Your task to perform on an android device: empty trash in the gmail app Image 0: 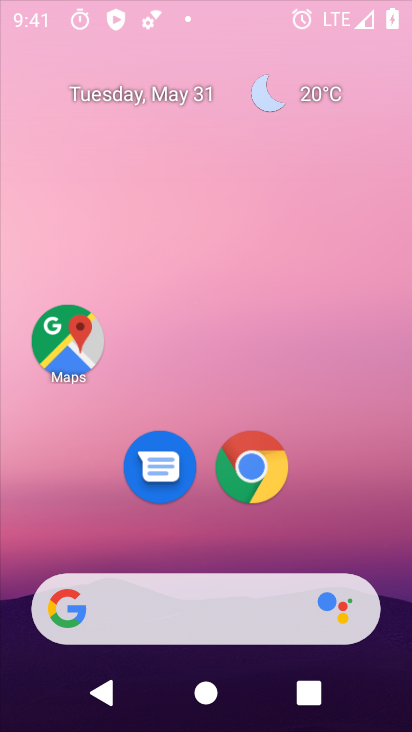
Step 0: click (257, 76)
Your task to perform on an android device: empty trash in the gmail app Image 1: 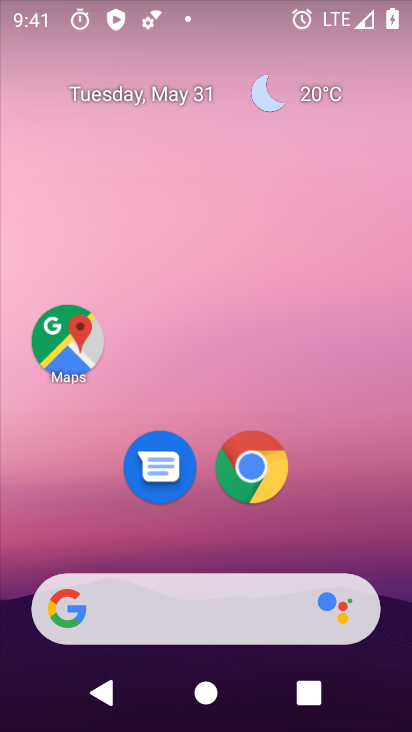
Step 1: click (73, 340)
Your task to perform on an android device: empty trash in the gmail app Image 2: 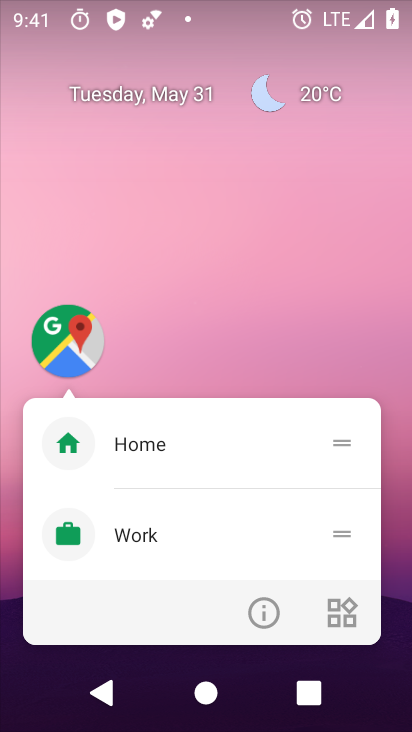
Step 2: click (271, 607)
Your task to perform on an android device: empty trash in the gmail app Image 3: 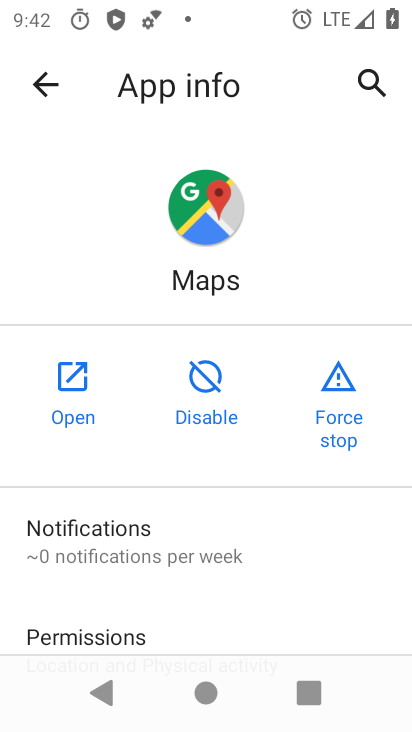
Step 3: click (59, 386)
Your task to perform on an android device: empty trash in the gmail app Image 4: 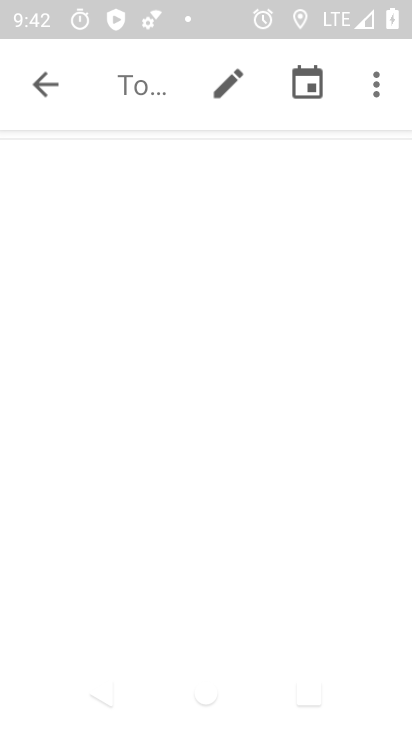
Step 4: drag from (178, 506) to (216, 205)
Your task to perform on an android device: empty trash in the gmail app Image 5: 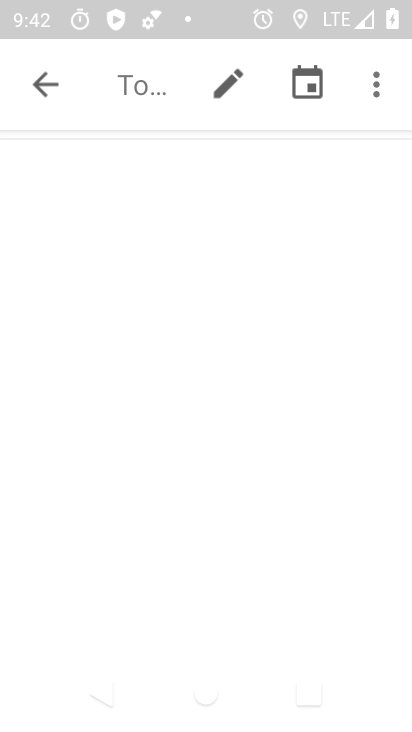
Step 5: click (207, 504)
Your task to perform on an android device: empty trash in the gmail app Image 6: 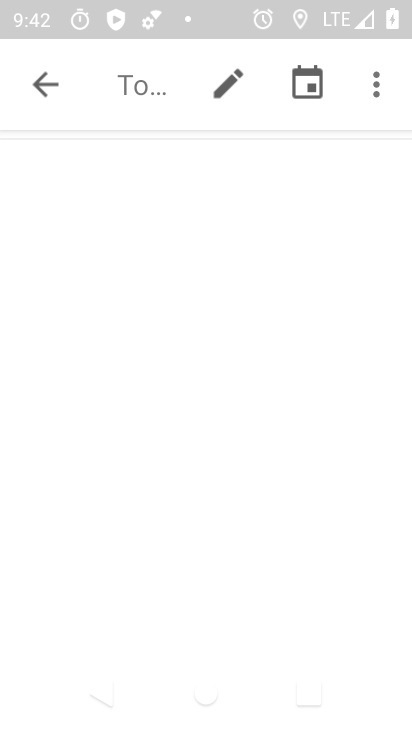
Step 6: drag from (216, 633) to (242, 250)
Your task to perform on an android device: empty trash in the gmail app Image 7: 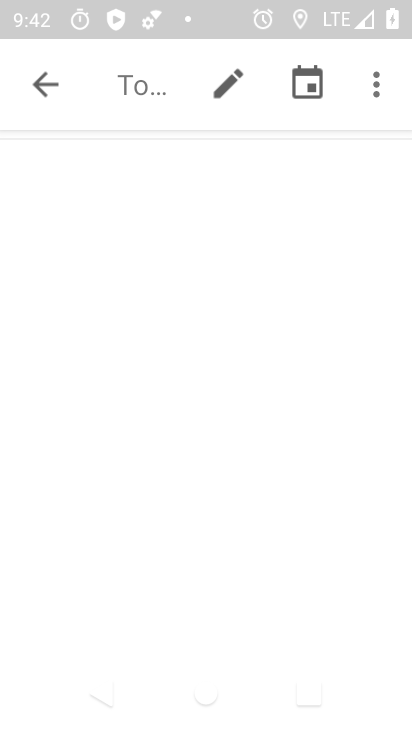
Step 7: click (23, 89)
Your task to perform on an android device: empty trash in the gmail app Image 8: 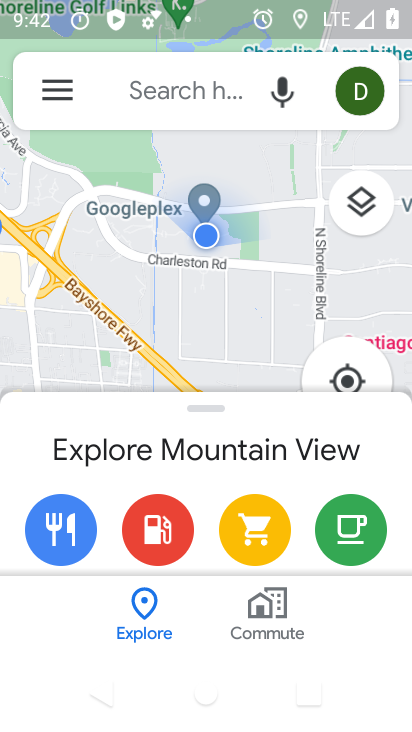
Step 8: click (67, 95)
Your task to perform on an android device: empty trash in the gmail app Image 9: 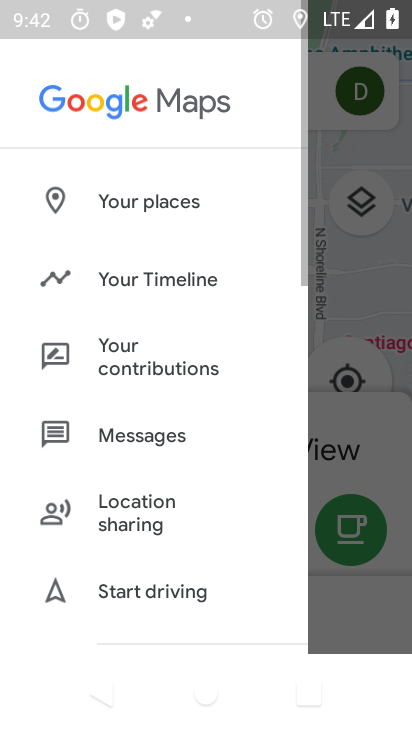
Step 9: drag from (179, 474) to (235, 16)
Your task to perform on an android device: empty trash in the gmail app Image 10: 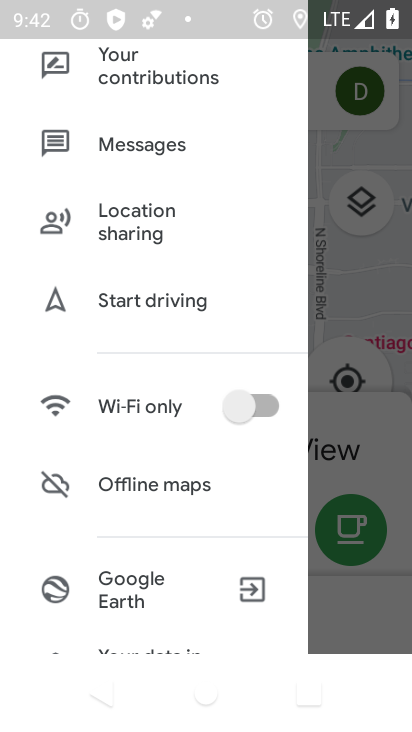
Step 10: drag from (164, 509) to (216, 56)
Your task to perform on an android device: empty trash in the gmail app Image 11: 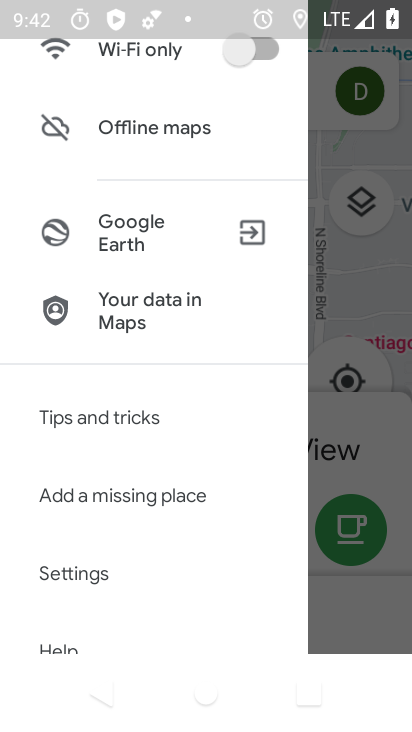
Step 11: press home button
Your task to perform on an android device: empty trash in the gmail app Image 12: 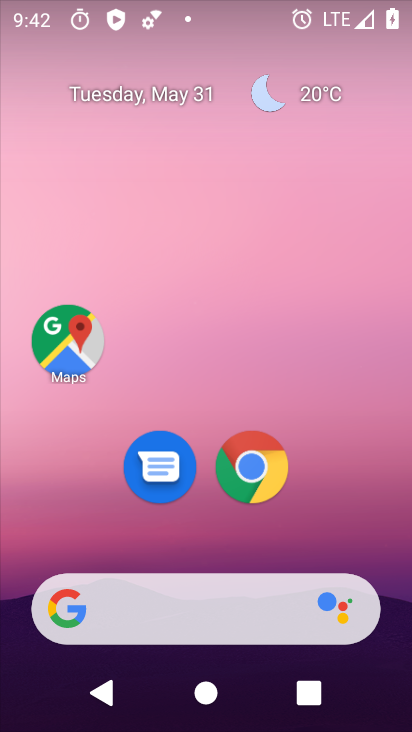
Step 12: drag from (233, 549) to (359, 8)
Your task to perform on an android device: empty trash in the gmail app Image 13: 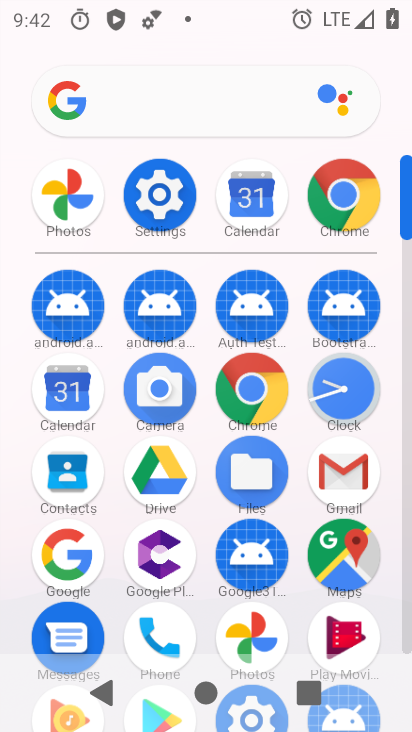
Step 13: click (355, 446)
Your task to perform on an android device: empty trash in the gmail app Image 14: 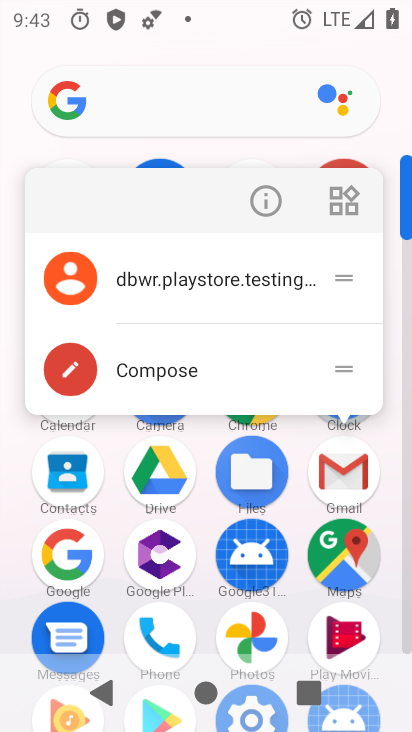
Step 14: click (266, 206)
Your task to perform on an android device: empty trash in the gmail app Image 15: 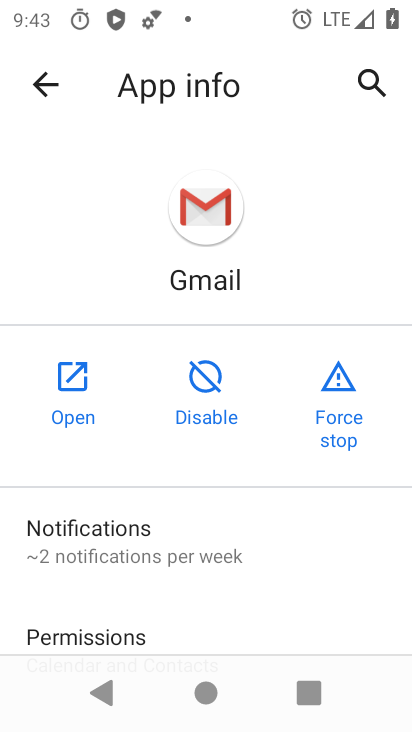
Step 15: click (90, 388)
Your task to perform on an android device: empty trash in the gmail app Image 16: 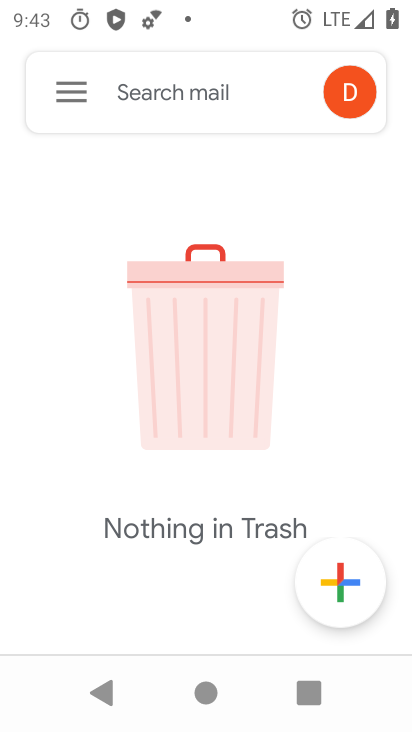
Step 16: click (55, 103)
Your task to perform on an android device: empty trash in the gmail app Image 17: 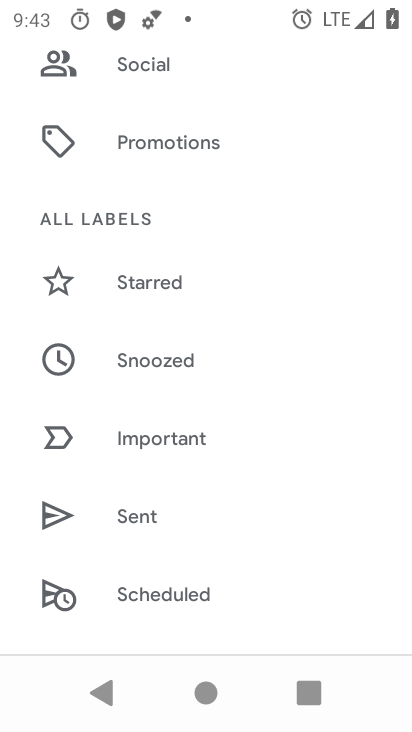
Step 17: drag from (164, 496) to (270, 0)
Your task to perform on an android device: empty trash in the gmail app Image 18: 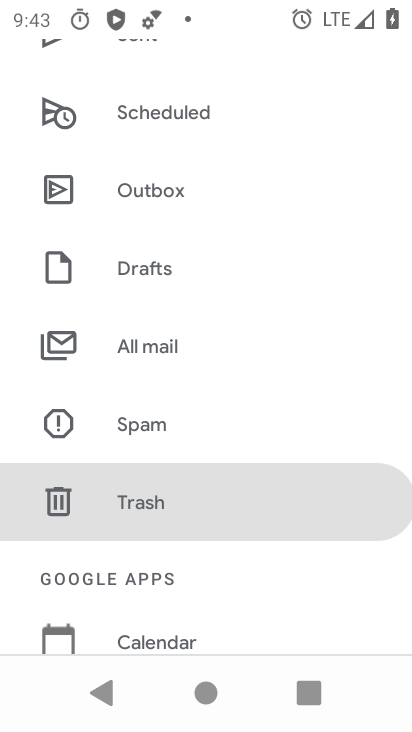
Step 18: click (151, 503)
Your task to perform on an android device: empty trash in the gmail app Image 19: 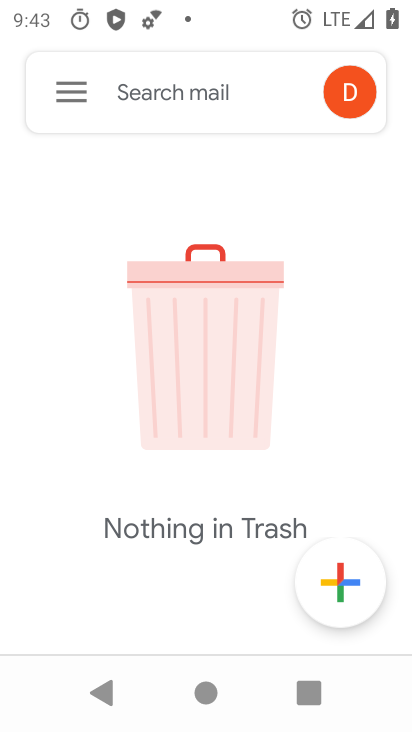
Step 19: task complete